Your task to perform on an android device: Go to notification settings Image 0: 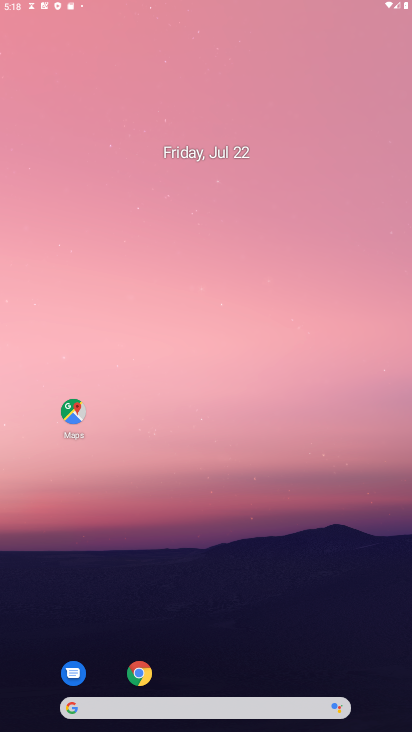
Step 0: press home button
Your task to perform on an android device: Go to notification settings Image 1: 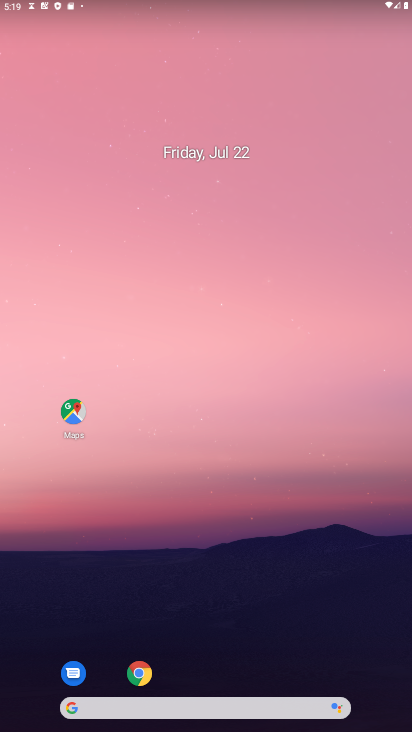
Step 1: drag from (215, 683) to (257, 0)
Your task to perform on an android device: Go to notification settings Image 2: 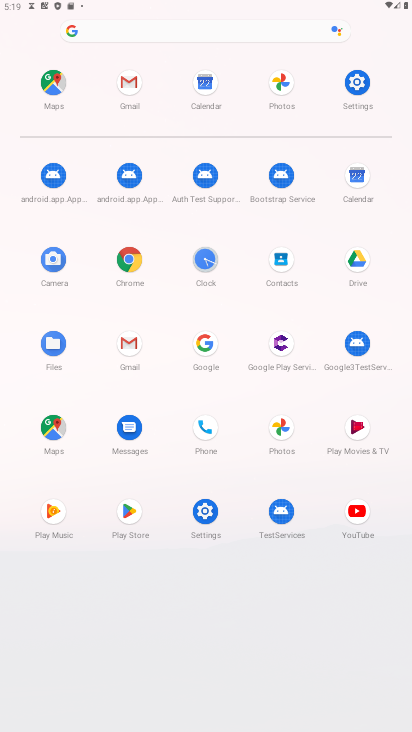
Step 2: click (359, 88)
Your task to perform on an android device: Go to notification settings Image 3: 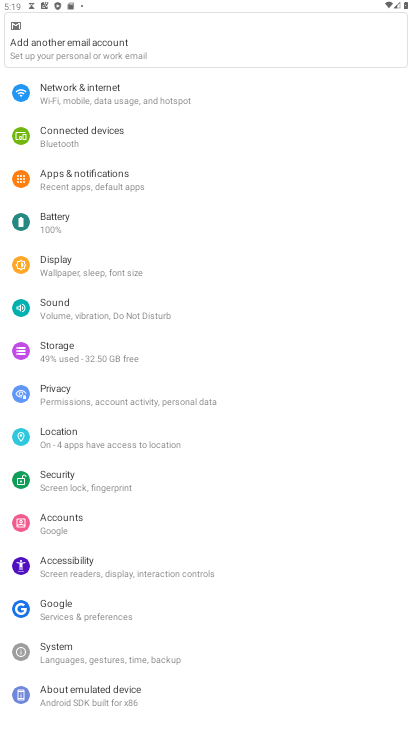
Step 3: click (77, 188)
Your task to perform on an android device: Go to notification settings Image 4: 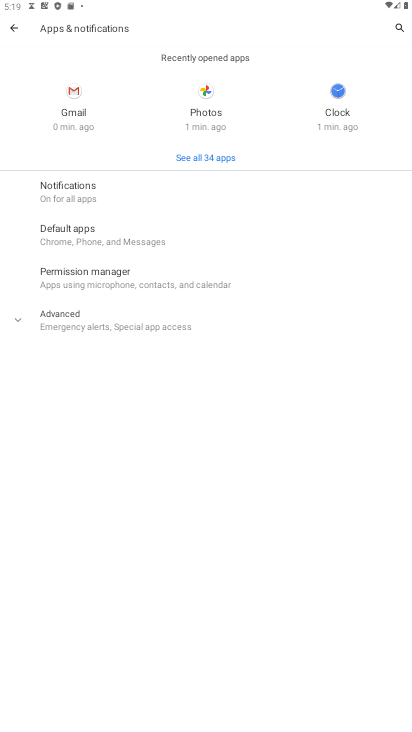
Step 4: click (67, 196)
Your task to perform on an android device: Go to notification settings Image 5: 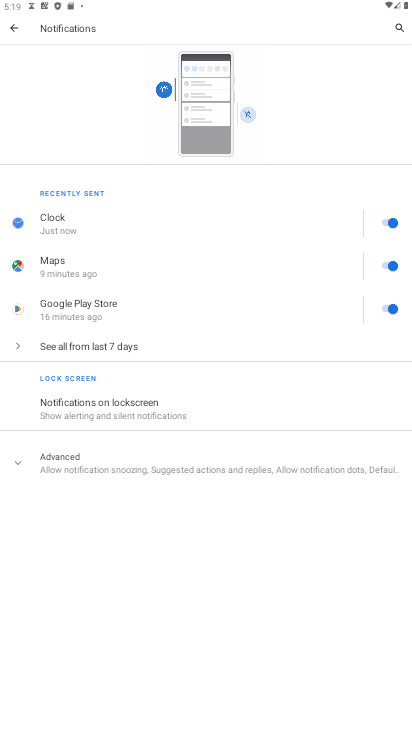
Step 5: task complete